Your task to perform on an android device: search for starred emails in the gmail app Image 0: 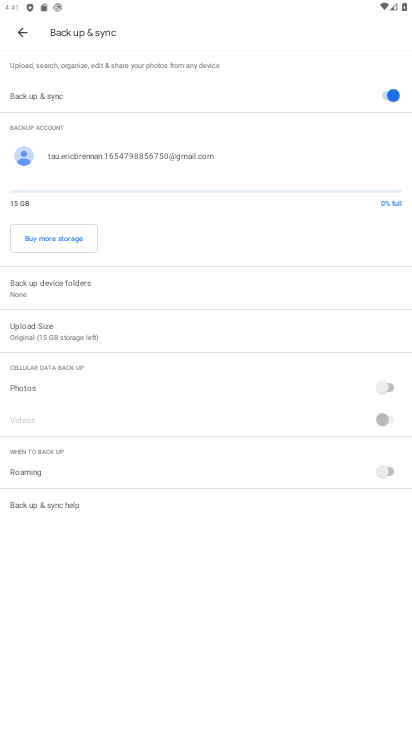
Step 0: press home button
Your task to perform on an android device: search for starred emails in the gmail app Image 1: 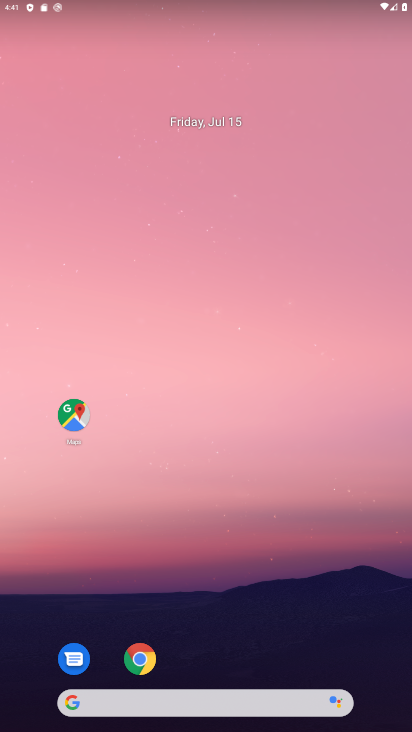
Step 1: drag from (236, 660) to (228, 67)
Your task to perform on an android device: search for starred emails in the gmail app Image 2: 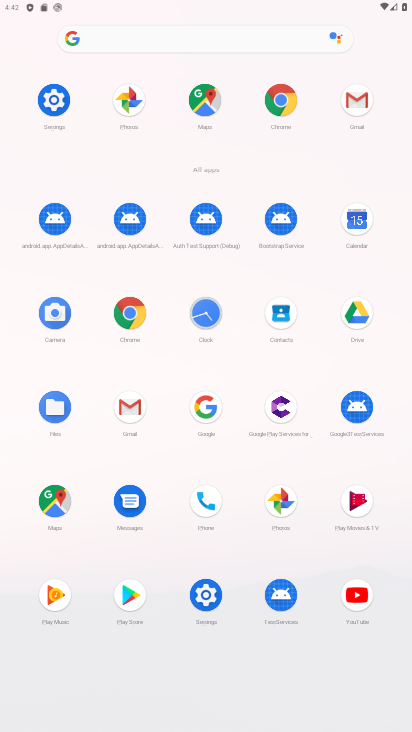
Step 2: click (347, 98)
Your task to perform on an android device: search for starred emails in the gmail app Image 3: 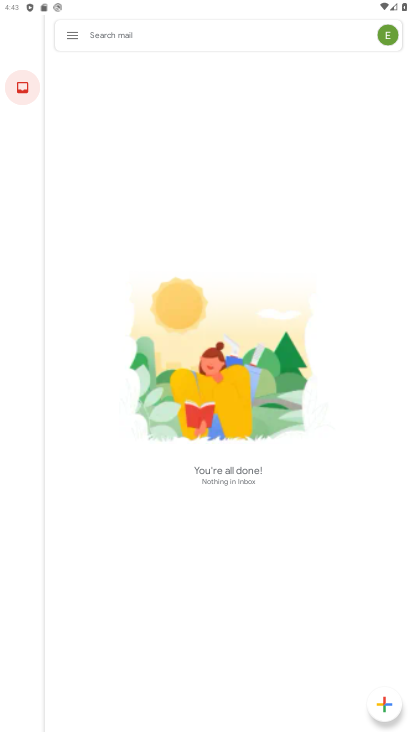
Step 3: click (74, 37)
Your task to perform on an android device: search for starred emails in the gmail app Image 4: 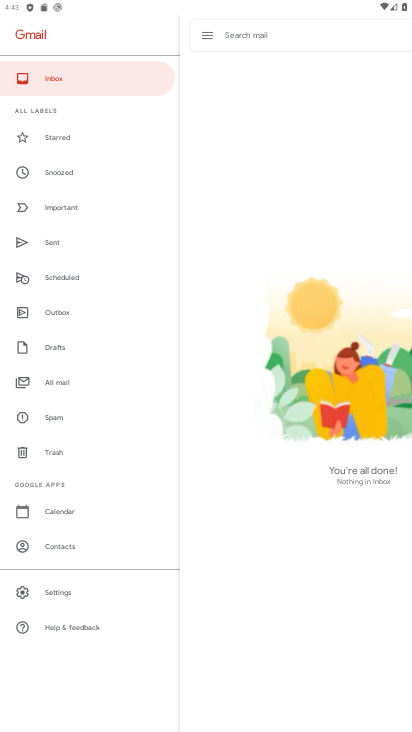
Step 4: click (89, 139)
Your task to perform on an android device: search for starred emails in the gmail app Image 5: 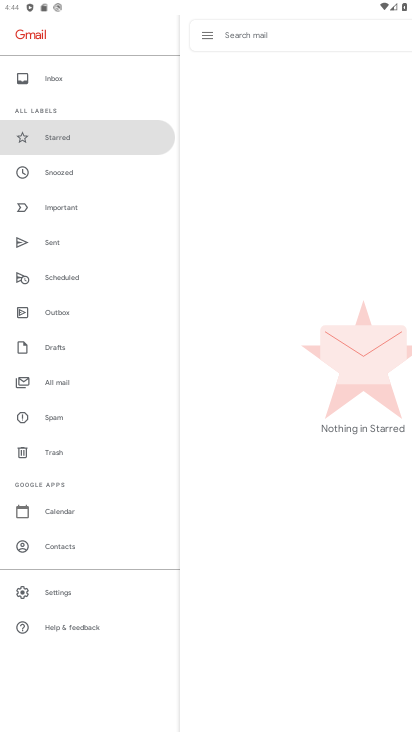
Step 5: task complete